Your task to perform on an android device: Open the web browser Image 0: 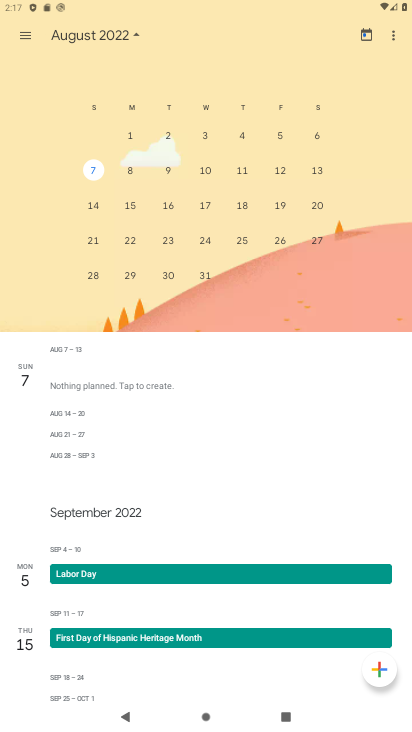
Step 0: press home button
Your task to perform on an android device: Open the web browser Image 1: 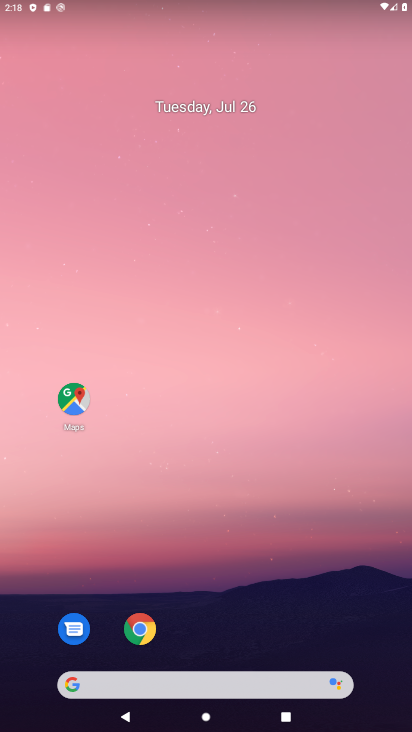
Step 1: click (140, 622)
Your task to perform on an android device: Open the web browser Image 2: 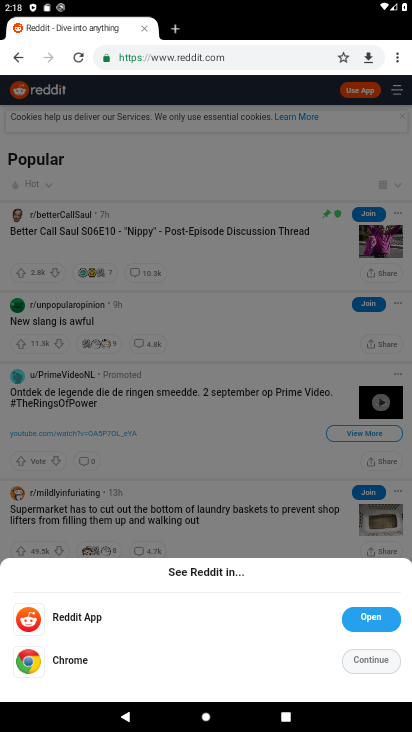
Step 2: task complete